Your task to perform on an android device: Open Google Image 0: 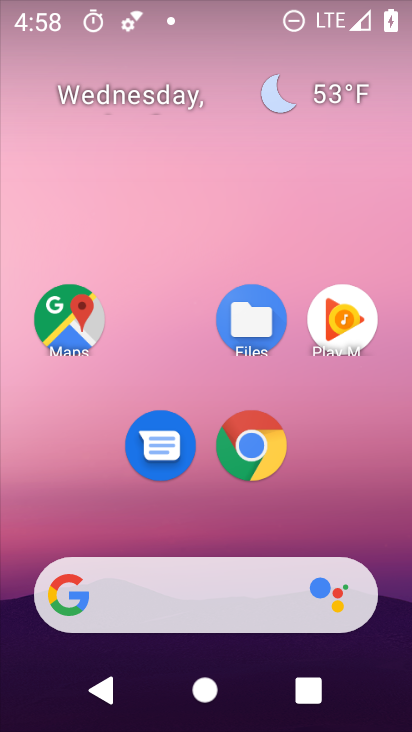
Step 0: click (180, 590)
Your task to perform on an android device: Open Google Image 1: 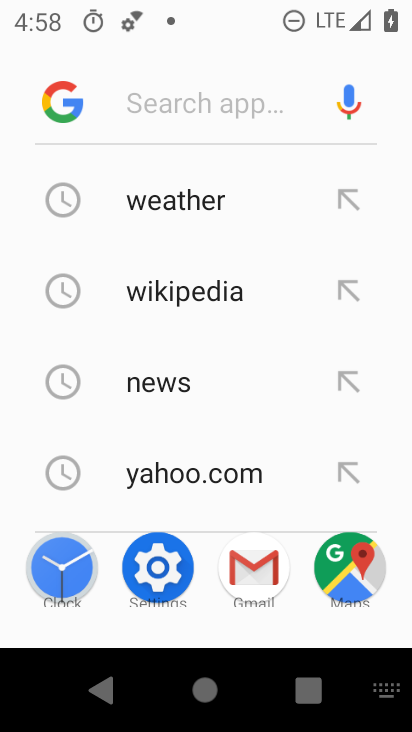
Step 1: task complete